Your task to perform on an android device: allow notifications from all sites in the chrome app Image 0: 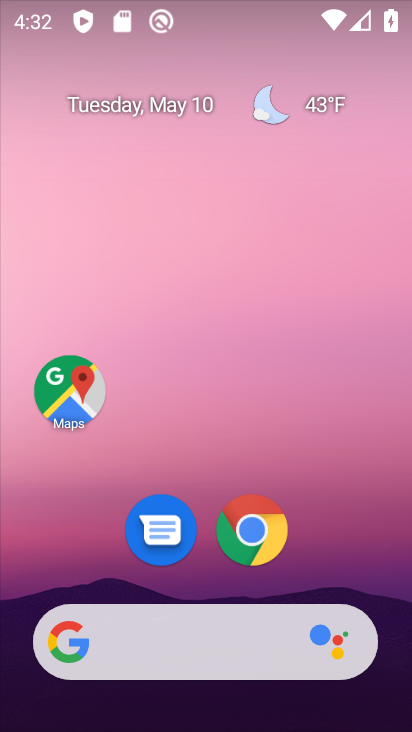
Step 0: click (273, 518)
Your task to perform on an android device: allow notifications from all sites in the chrome app Image 1: 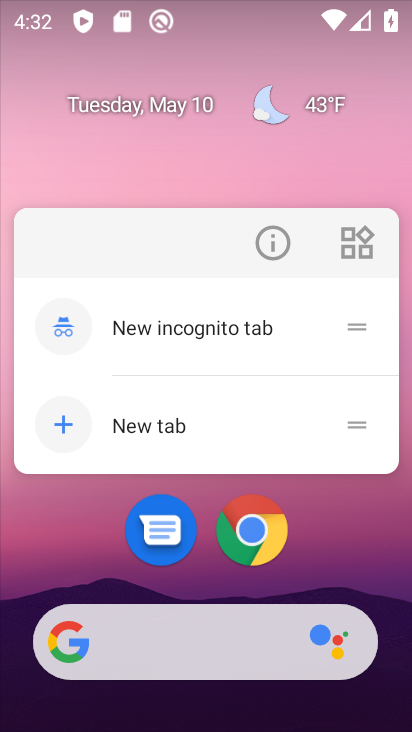
Step 1: click (272, 527)
Your task to perform on an android device: allow notifications from all sites in the chrome app Image 2: 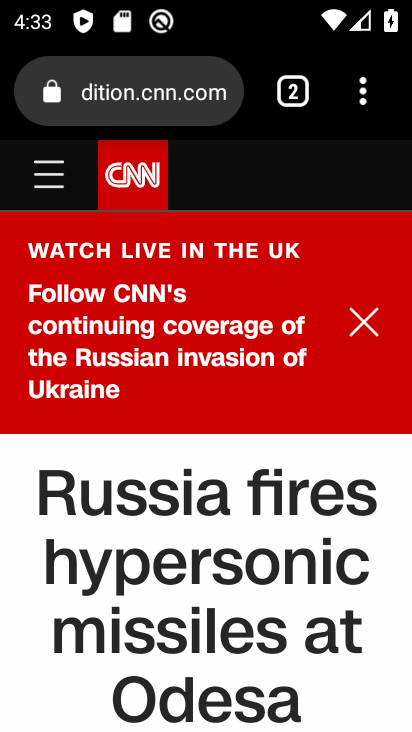
Step 2: click (359, 75)
Your task to perform on an android device: allow notifications from all sites in the chrome app Image 3: 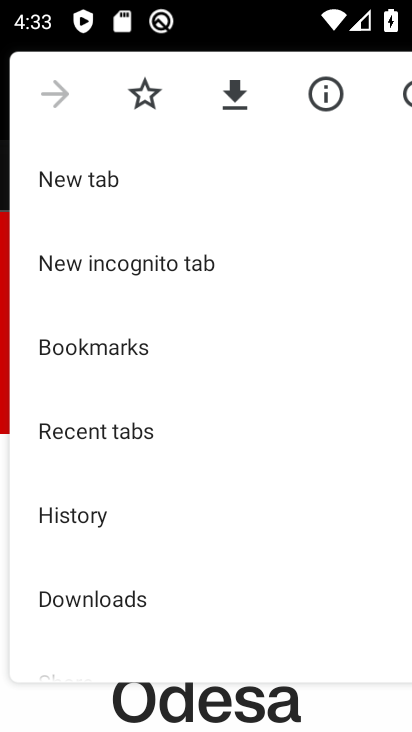
Step 3: drag from (239, 240) to (247, 155)
Your task to perform on an android device: allow notifications from all sites in the chrome app Image 4: 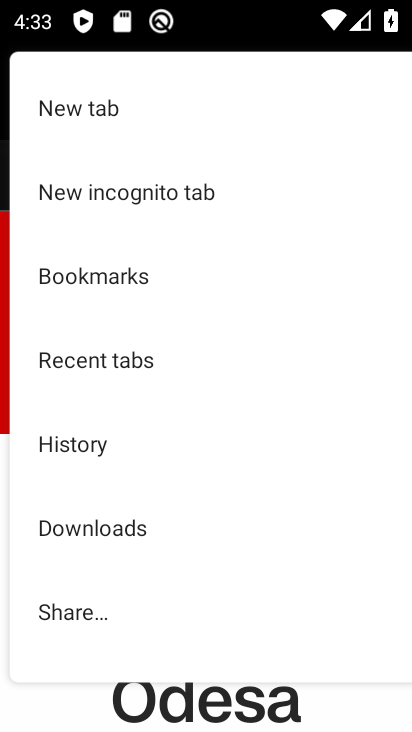
Step 4: drag from (232, 545) to (274, 187)
Your task to perform on an android device: allow notifications from all sites in the chrome app Image 5: 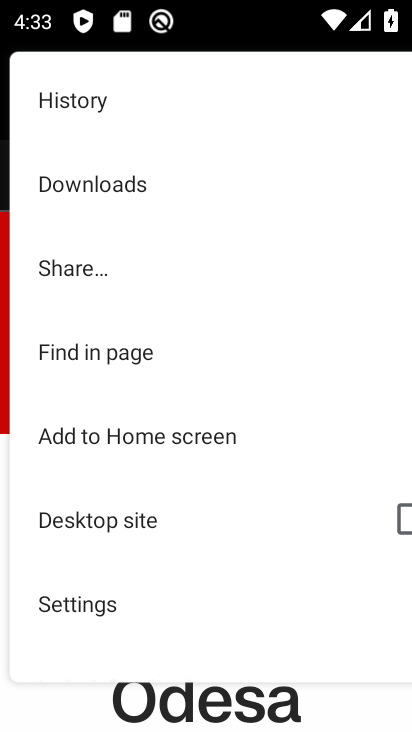
Step 5: click (138, 585)
Your task to perform on an android device: allow notifications from all sites in the chrome app Image 6: 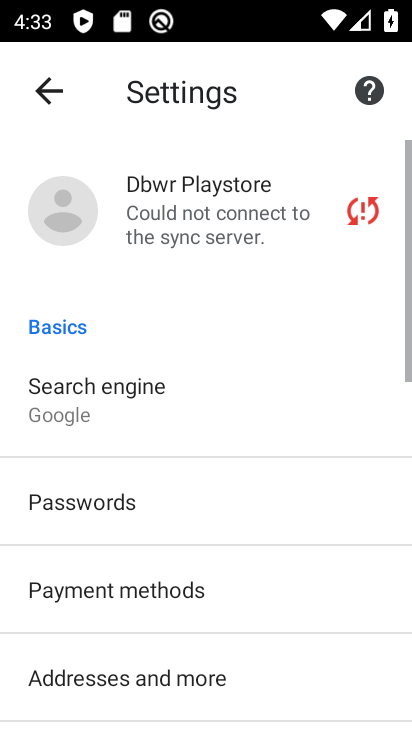
Step 6: drag from (130, 568) to (211, 185)
Your task to perform on an android device: allow notifications from all sites in the chrome app Image 7: 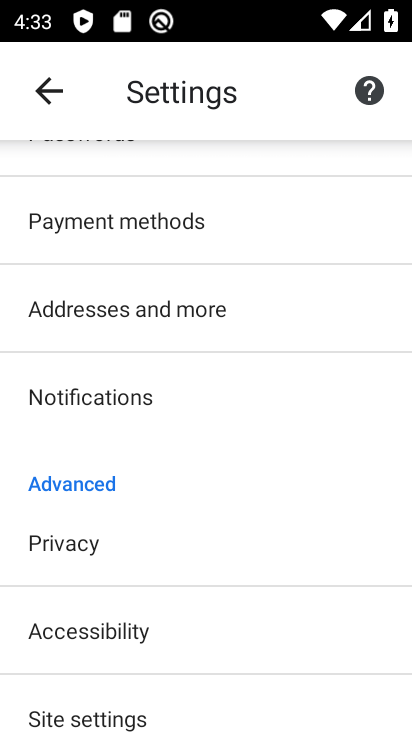
Step 7: click (135, 395)
Your task to perform on an android device: allow notifications from all sites in the chrome app Image 8: 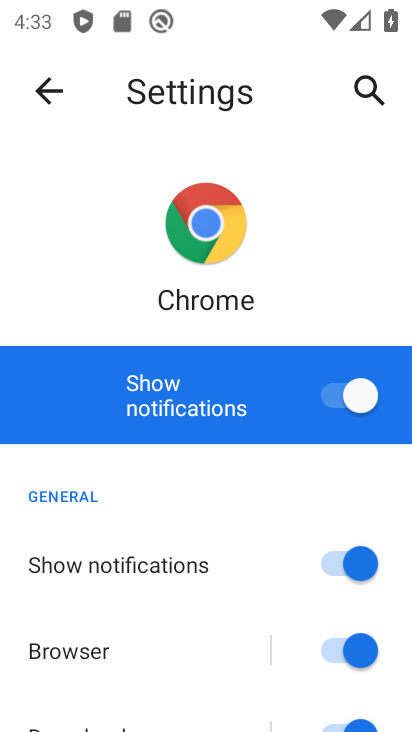
Step 8: task complete